Your task to perform on an android device: toggle priority inbox in the gmail app Image 0: 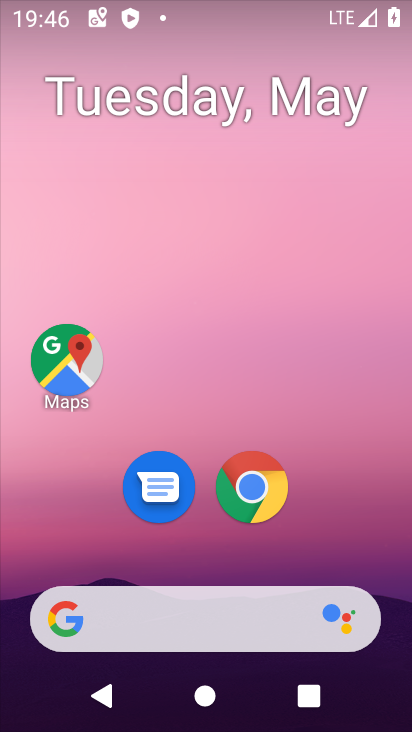
Step 0: drag from (310, 437) to (193, 14)
Your task to perform on an android device: toggle priority inbox in the gmail app Image 1: 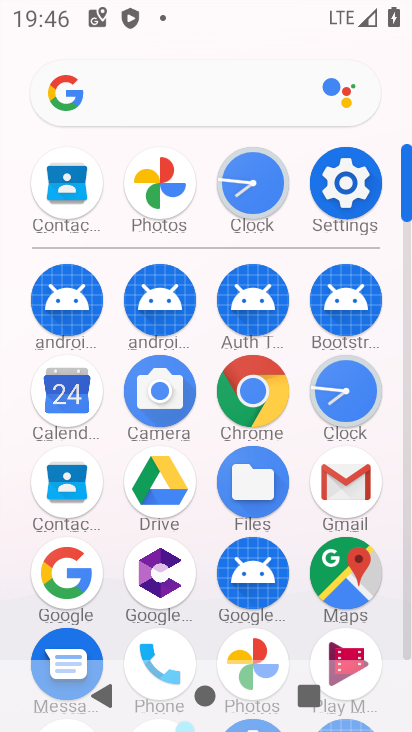
Step 1: click (336, 467)
Your task to perform on an android device: toggle priority inbox in the gmail app Image 2: 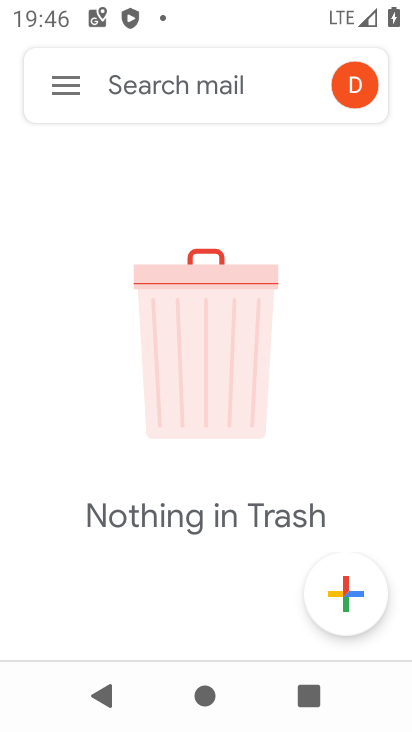
Step 2: click (56, 69)
Your task to perform on an android device: toggle priority inbox in the gmail app Image 3: 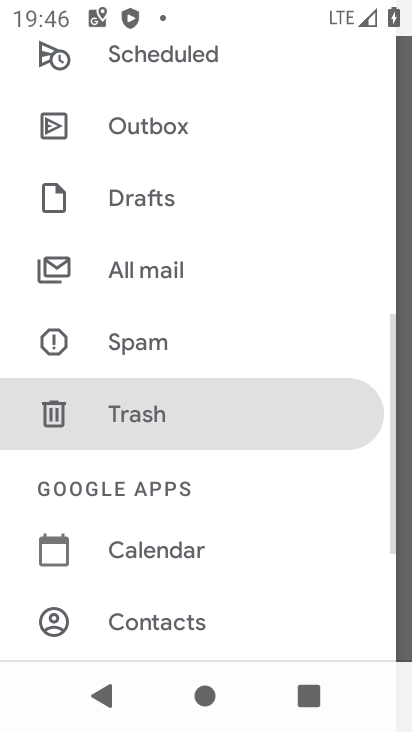
Step 3: drag from (209, 574) to (192, 237)
Your task to perform on an android device: toggle priority inbox in the gmail app Image 4: 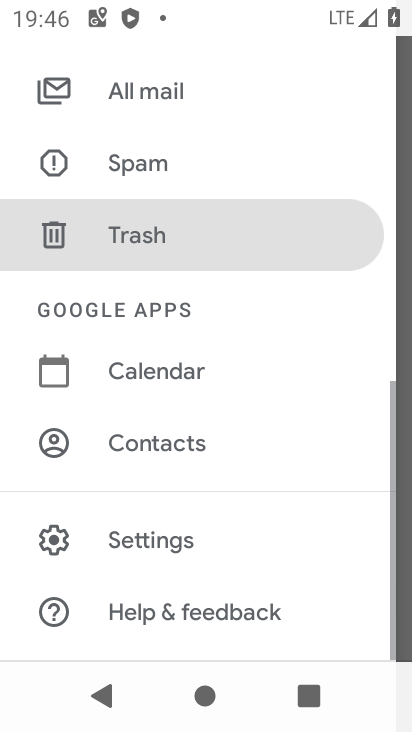
Step 4: click (161, 537)
Your task to perform on an android device: toggle priority inbox in the gmail app Image 5: 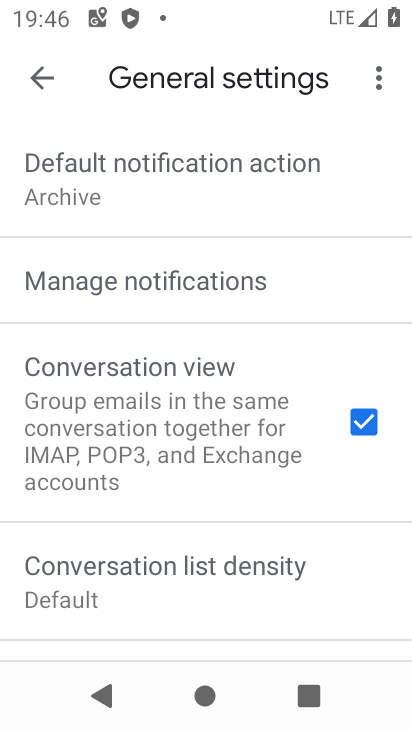
Step 5: click (46, 77)
Your task to perform on an android device: toggle priority inbox in the gmail app Image 6: 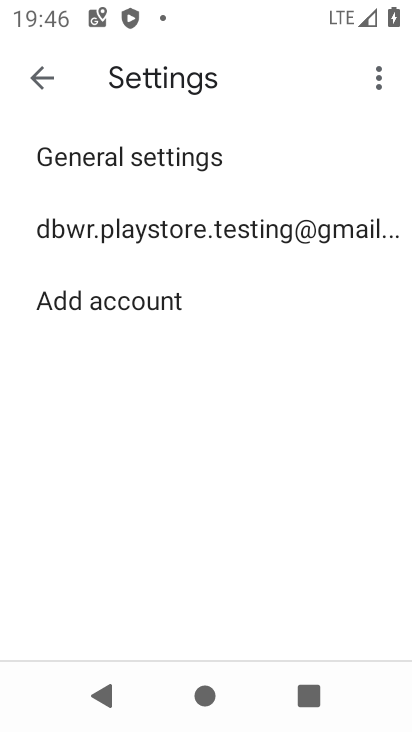
Step 6: click (166, 228)
Your task to perform on an android device: toggle priority inbox in the gmail app Image 7: 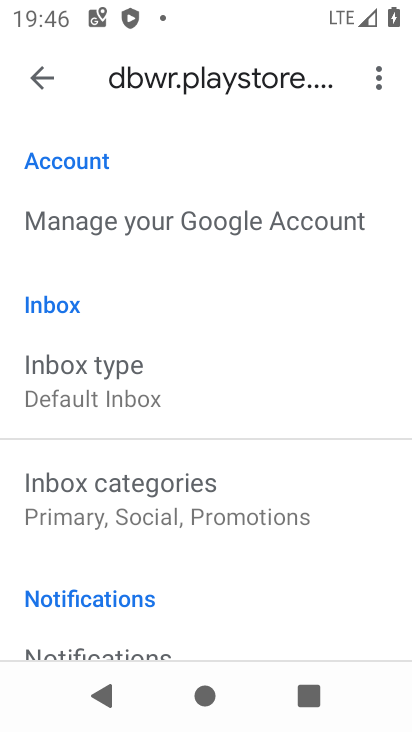
Step 7: click (88, 376)
Your task to perform on an android device: toggle priority inbox in the gmail app Image 8: 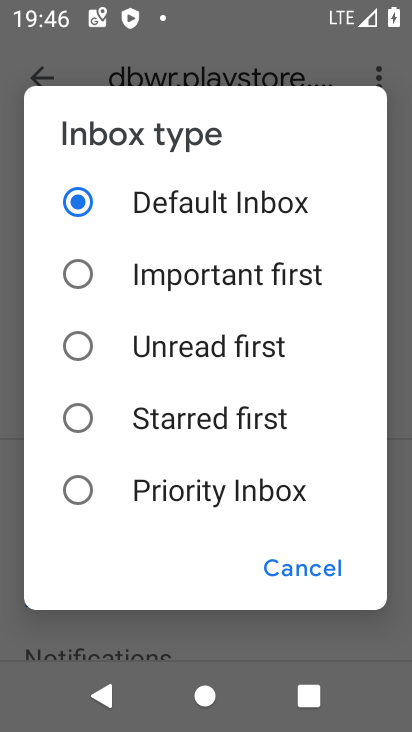
Step 8: click (74, 501)
Your task to perform on an android device: toggle priority inbox in the gmail app Image 9: 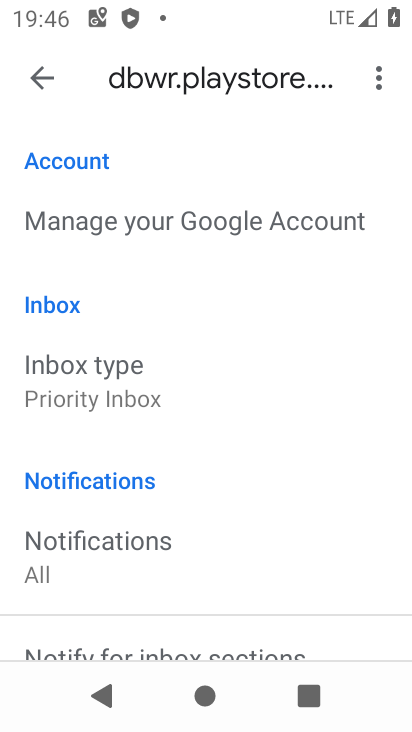
Step 9: task complete